Your task to perform on an android device: allow notifications from all sites in the chrome app Image 0: 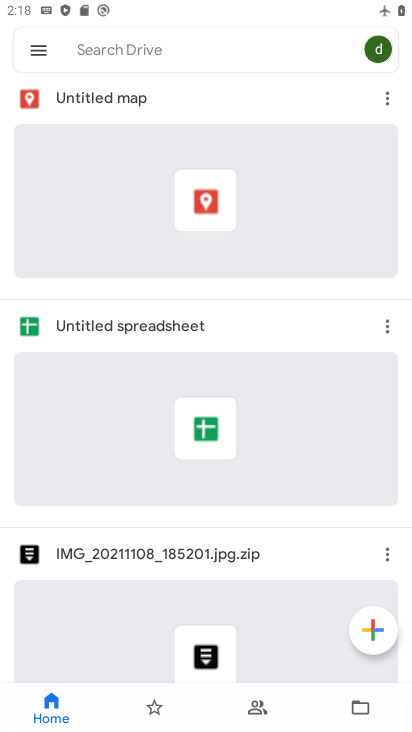
Step 0: press home button
Your task to perform on an android device: allow notifications from all sites in the chrome app Image 1: 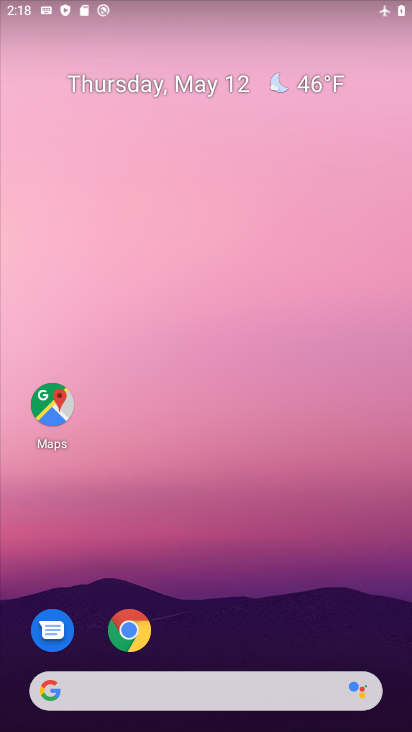
Step 1: click (131, 635)
Your task to perform on an android device: allow notifications from all sites in the chrome app Image 2: 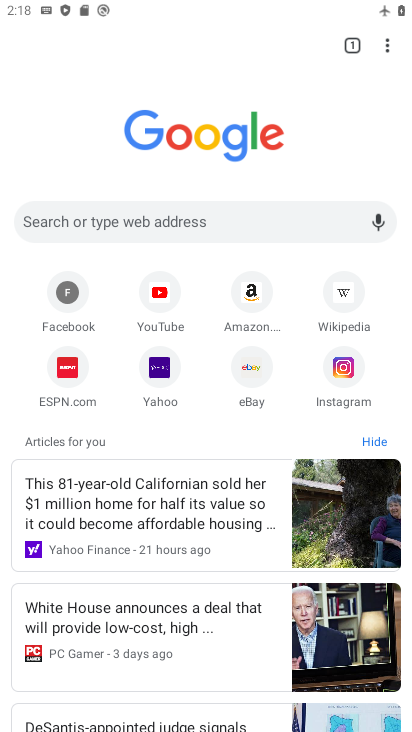
Step 2: click (388, 40)
Your task to perform on an android device: allow notifications from all sites in the chrome app Image 3: 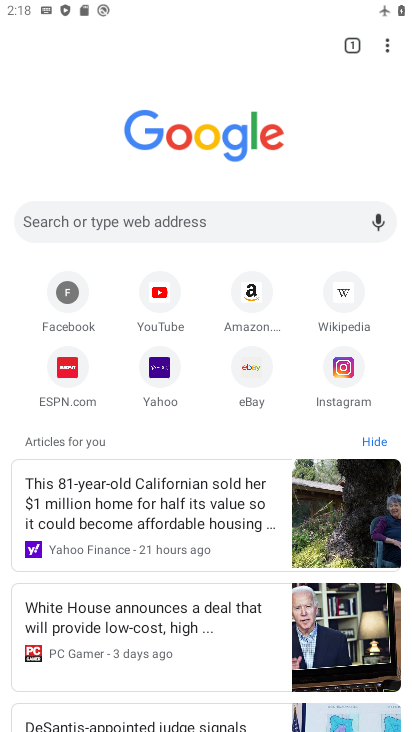
Step 3: click (388, 55)
Your task to perform on an android device: allow notifications from all sites in the chrome app Image 4: 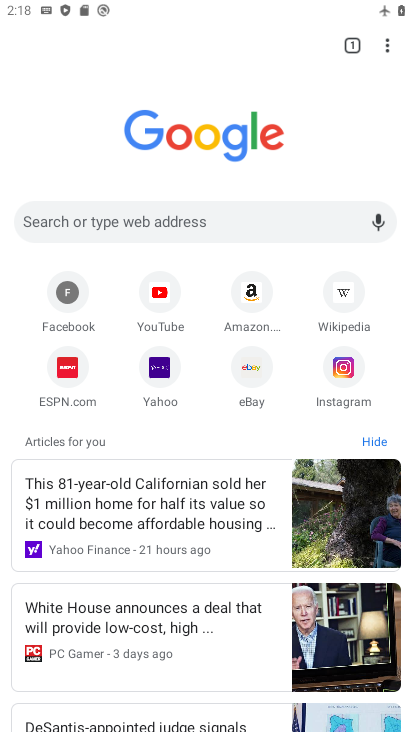
Step 4: click (388, 46)
Your task to perform on an android device: allow notifications from all sites in the chrome app Image 5: 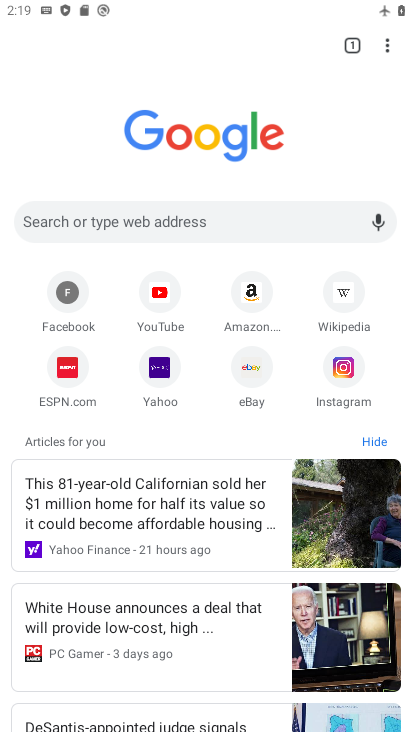
Step 5: click (386, 57)
Your task to perform on an android device: allow notifications from all sites in the chrome app Image 6: 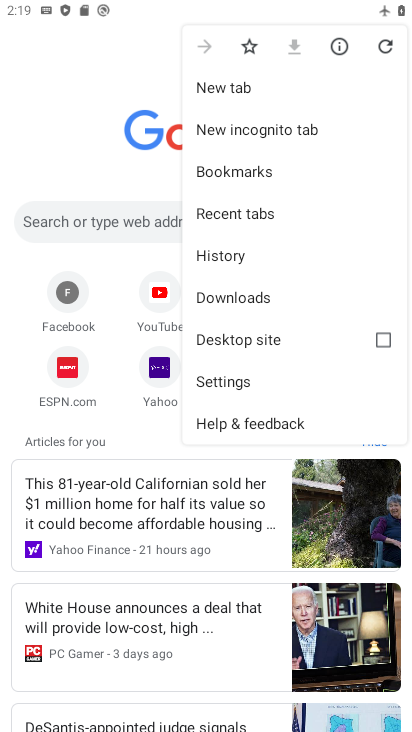
Step 6: click (238, 371)
Your task to perform on an android device: allow notifications from all sites in the chrome app Image 7: 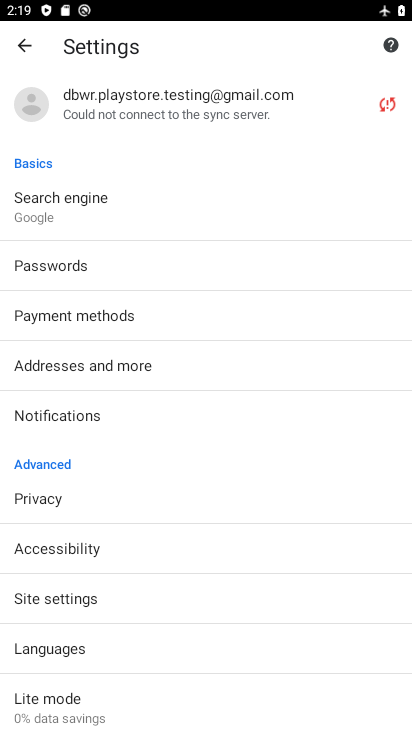
Step 7: click (80, 591)
Your task to perform on an android device: allow notifications from all sites in the chrome app Image 8: 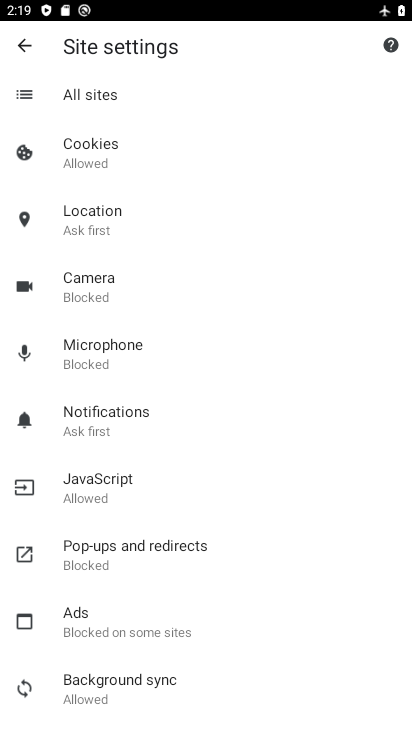
Step 8: click (115, 421)
Your task to perform on an android device: allow notifications from all sites in the chrome app Image 9: 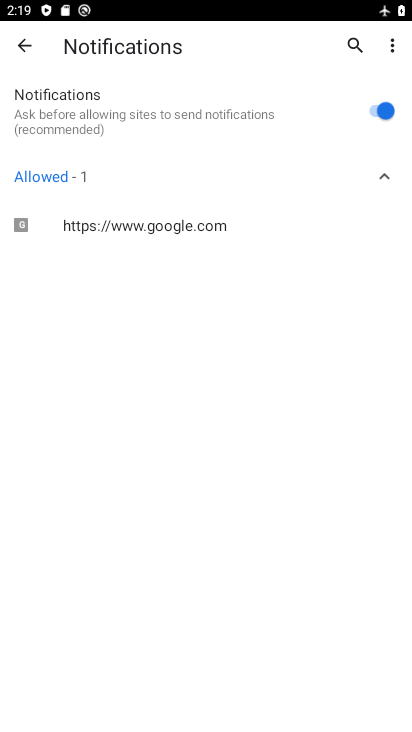
Step 9: task complete